Your task to perform on an android device: Search for pizza restaurants on Maps Image 0: 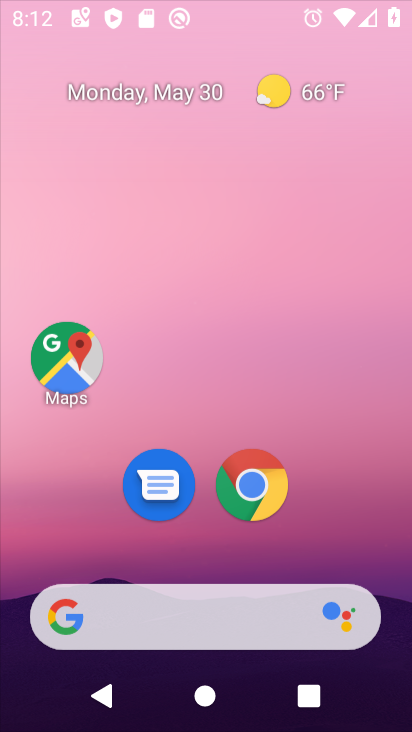
Step 0: press home button
Your task to perform on an android device: Search for pizza restaurants on Maps Image 1: 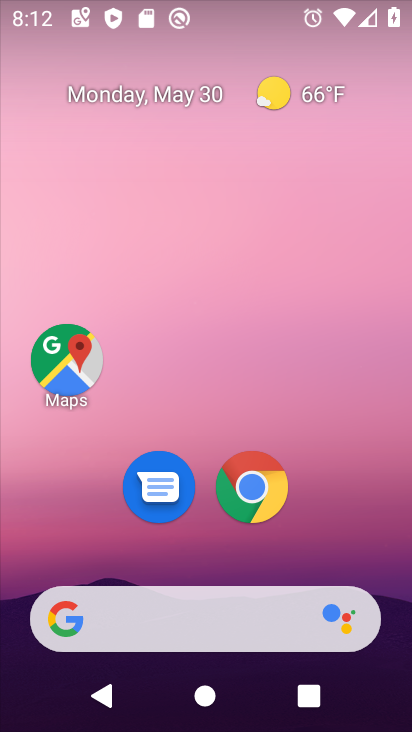
Step 1: drag from (347, 503) to (350, 73)
Your task to perform on an android device: Search for pizza restaurants on Maps Image 2: 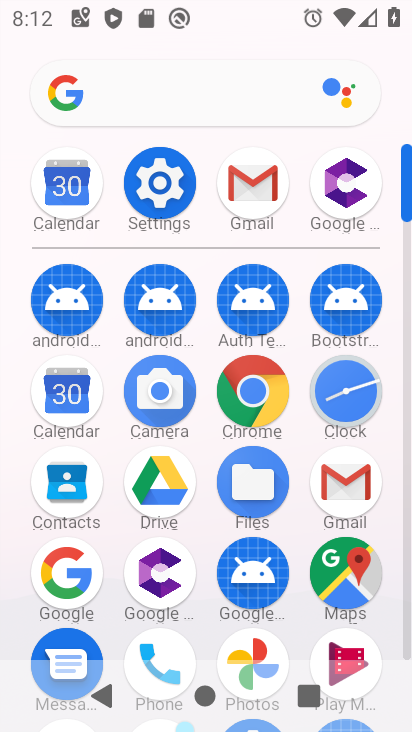
Step 2: click (352, 585)
Your task to perform on an android device: Search for pizza restaurants on Maps Image 3: 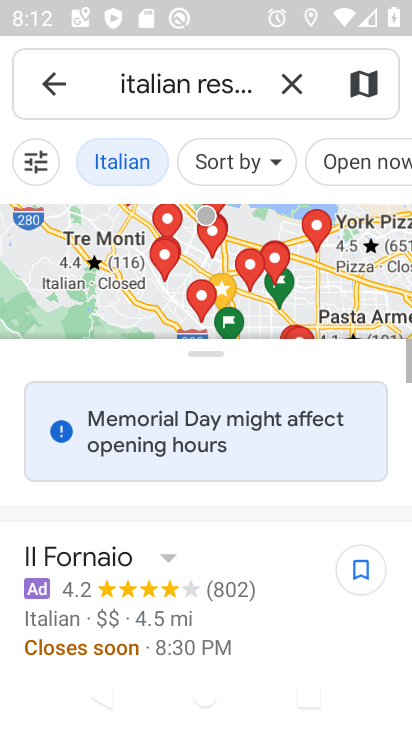
Step 3: click (294, 92)
Your task to perform on an android device: Search for pizza restaurants on Maps Image 4: 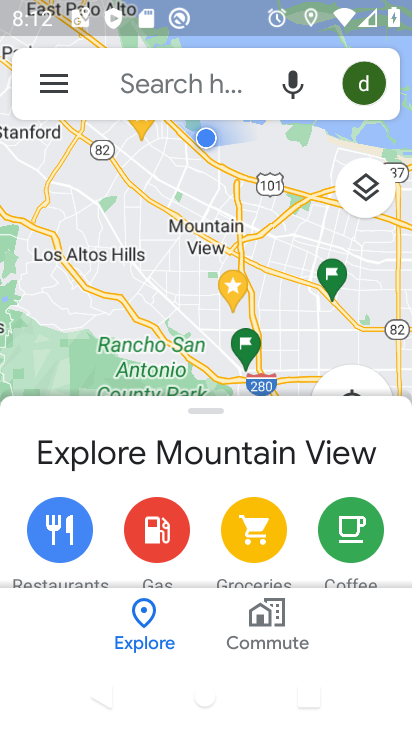
Step 4: click (191, 86)
Your task to perform on an android device: Search for pizza restaurants on Maps Image 5: 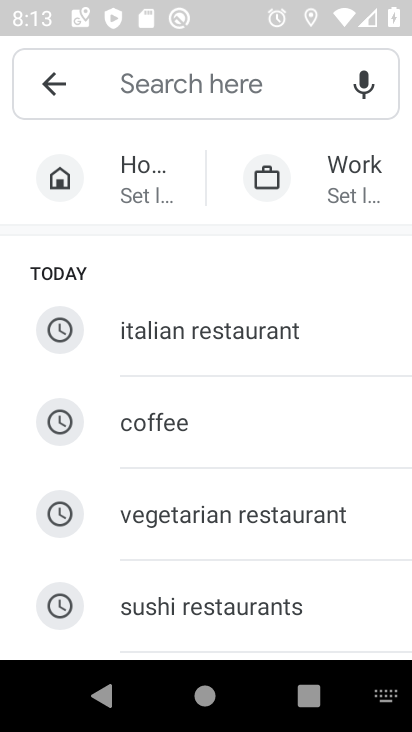
Step 5: type "pizza restaurants"
Your task to perform on an android device: Search for pizza restaurants on Maps Image 6: 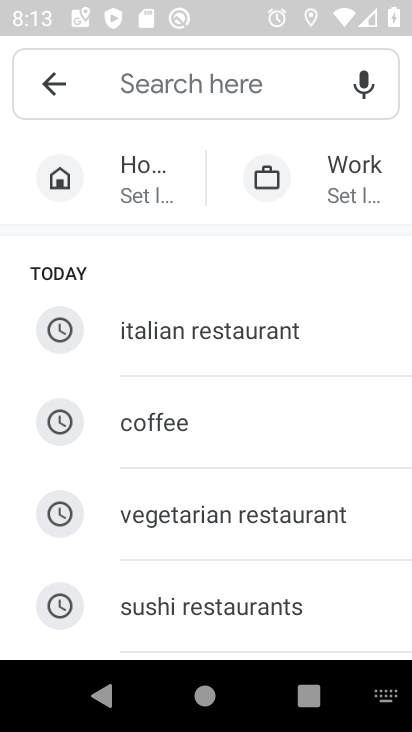
Step 6: click (238, 75)
Your task to perform on an android device: Search for pizza restaurants on Maps Image 7: 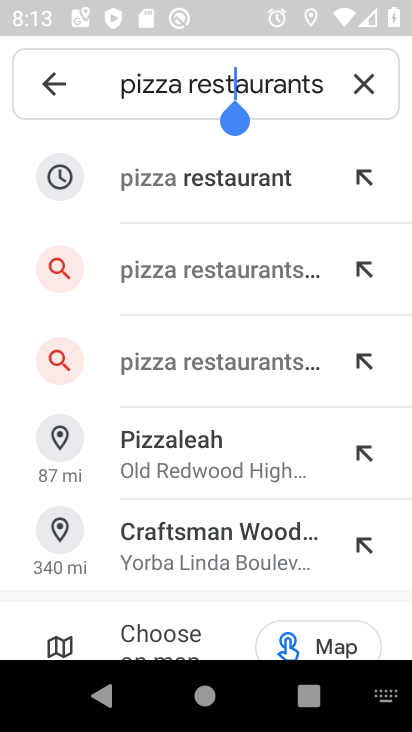
Step 7: click (209, 183)
Your task to perform on an android device: Search for pizza restaurants on Maps Image 8: 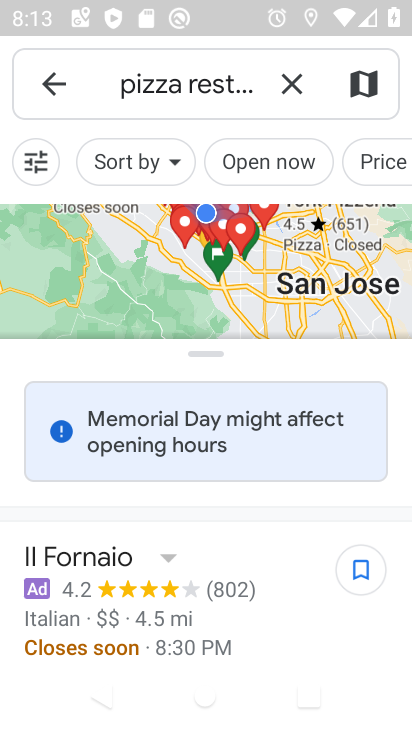
Step 8: task complete